Your task to perform on an android device: clear history in the chrome app Image 0: 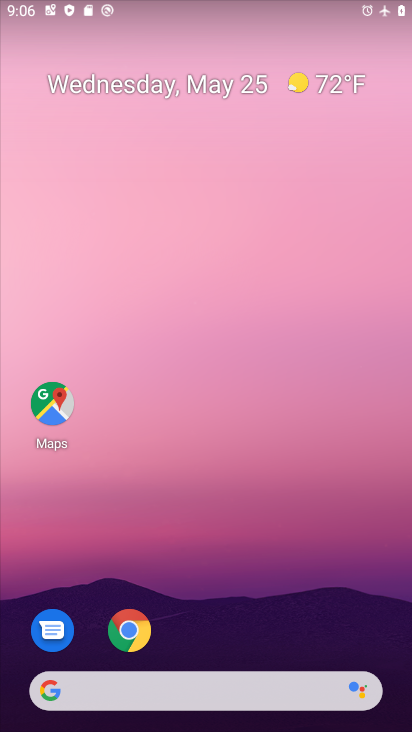
Step 0: click (147, 632)
Your task to perform on an android device: clear history in the chrome app Image 1: 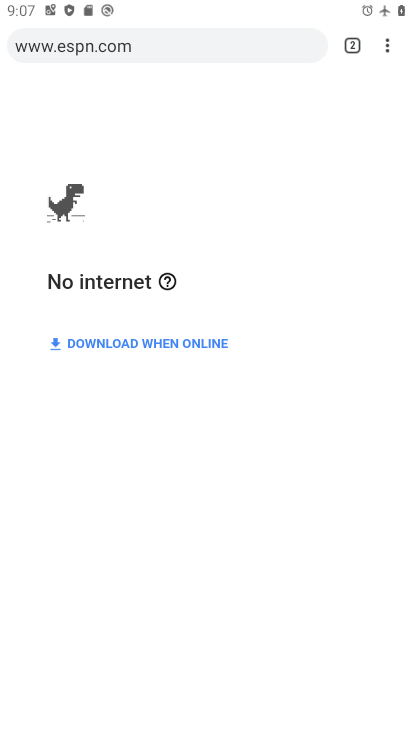
Step 1: click (389, 47)
Your task to perform on an android device: clear history in the chrome app Image 2: 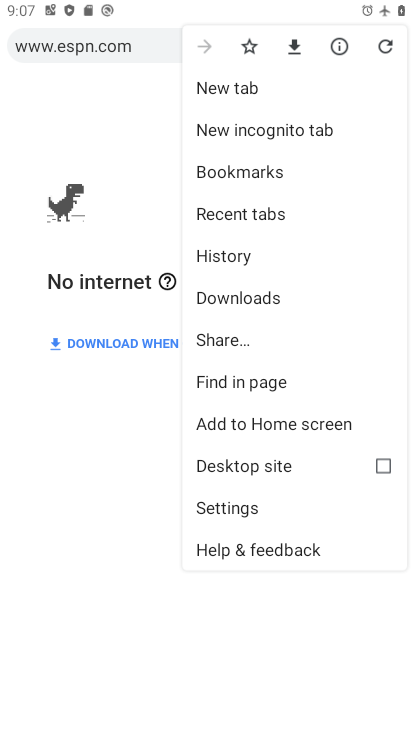
Step 2: click (237, 253)
Your task to perform on an android device: clear history in the chrome app Image 3: 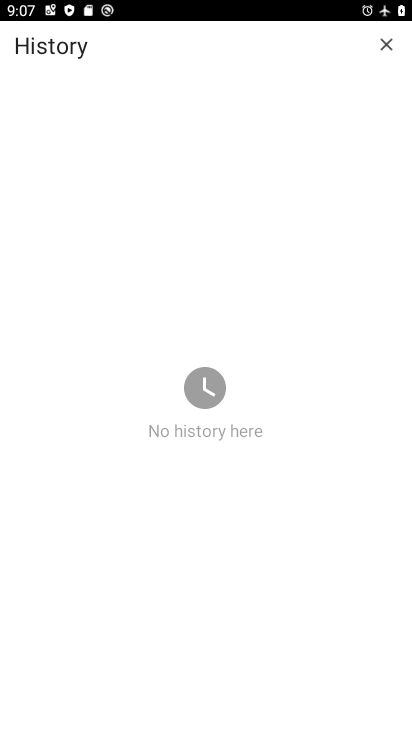
Step 3: task complete